Your task to perform on an android device: Show me recent news Image 0: 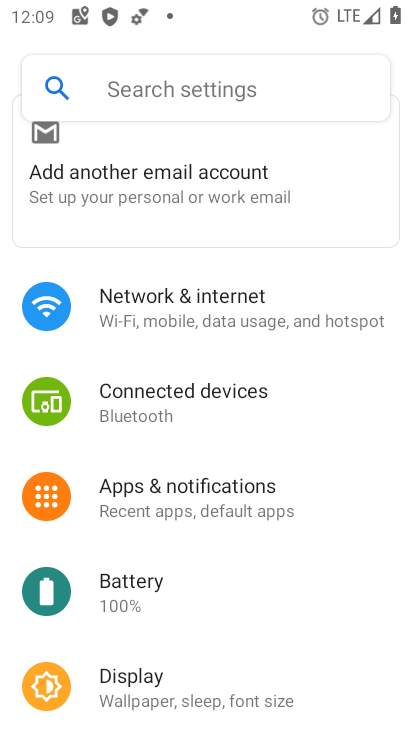
Step 0: press home button
Your task to perform on an android device: Show me recent news Image 1: 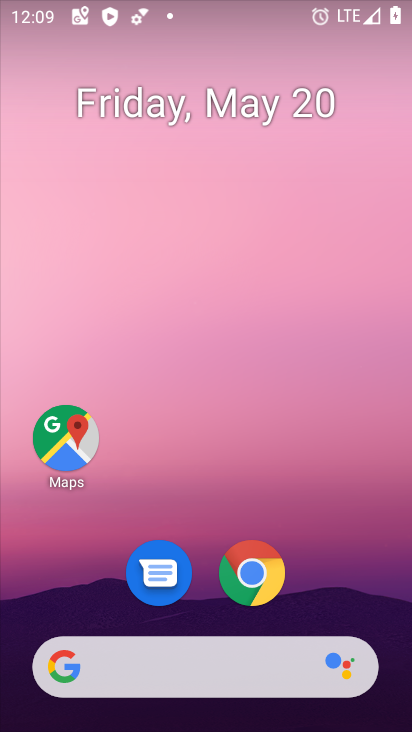
Step 1: drag from (212, 575) to (309, 117)
Your task to perform on an android device: Show me recent news Image 2: 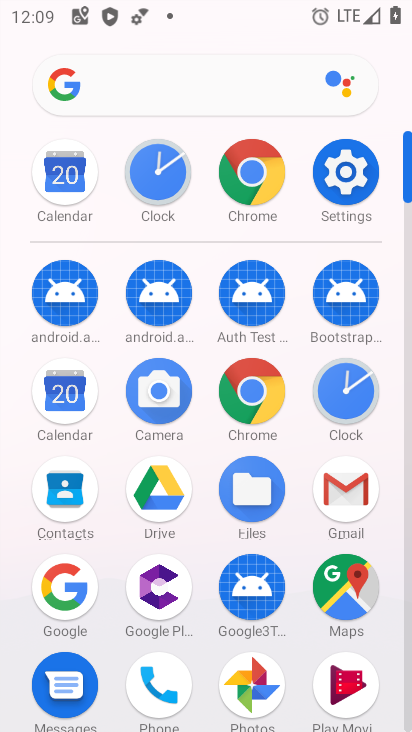
Step 2: click (208, 99)
Your task to perform on an android device: Show me recent news Image 3: 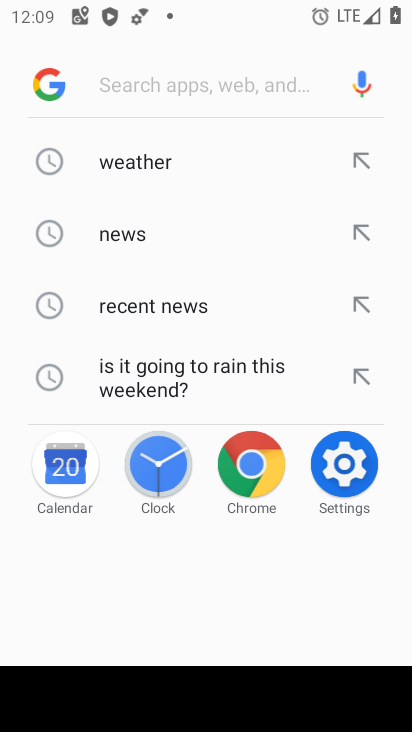
Step 3: type "recent news"
Your task to perform on an android device: Show me recent news Image 4: 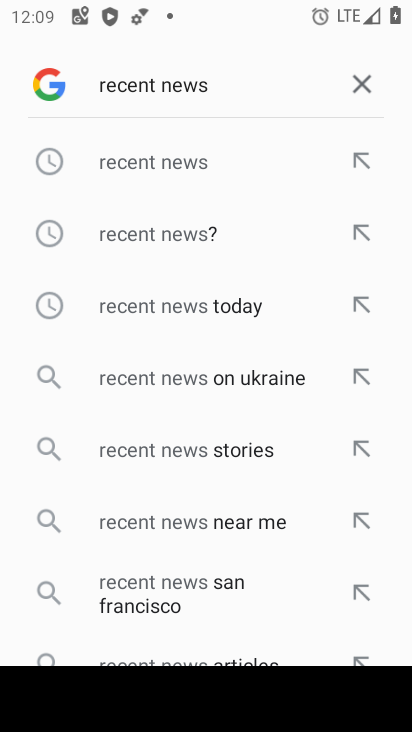
Step 4: click (178, 168)
Your task to perform on an android device: Show me recent news Image 5: 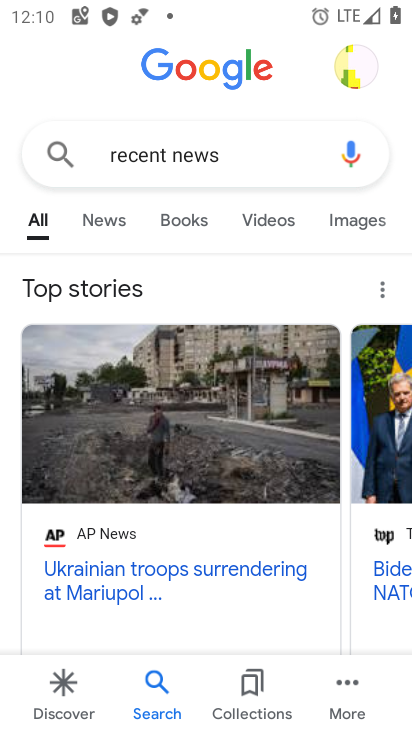
Step 5: task complete